Your task to perform on an android device: Open the map Image 0: 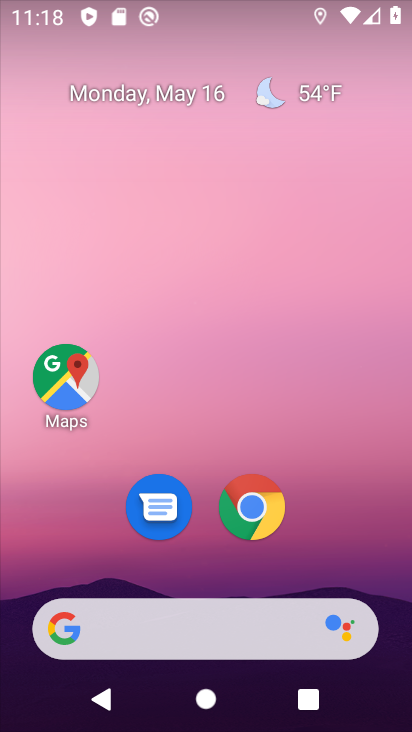
Step 0: drag from (396, 601) to (338, 84)
Your task to perform on an android device: Open the map Image 1: 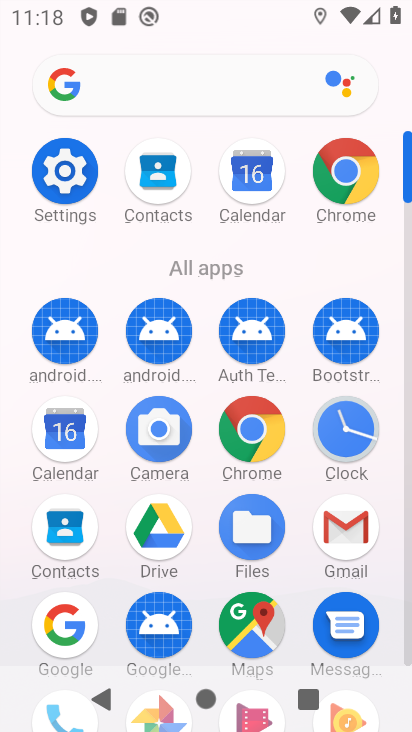
Step 1: click (270, 604)
Your task to perform on an android device: Open the map Image 2: 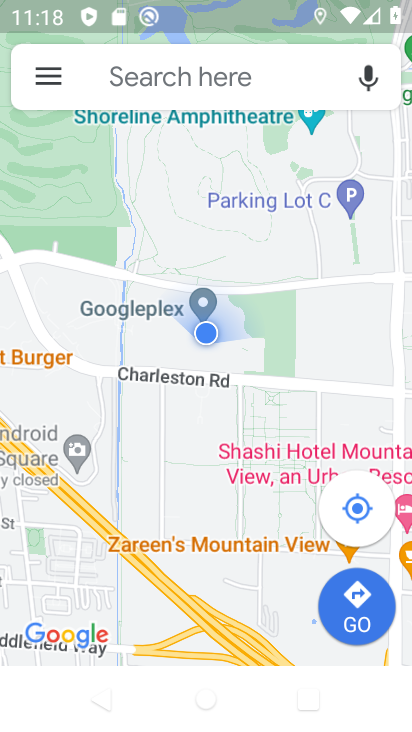
Step 2: task complete